Your task to perform on an android device: clear history in the chrome app Image 0: 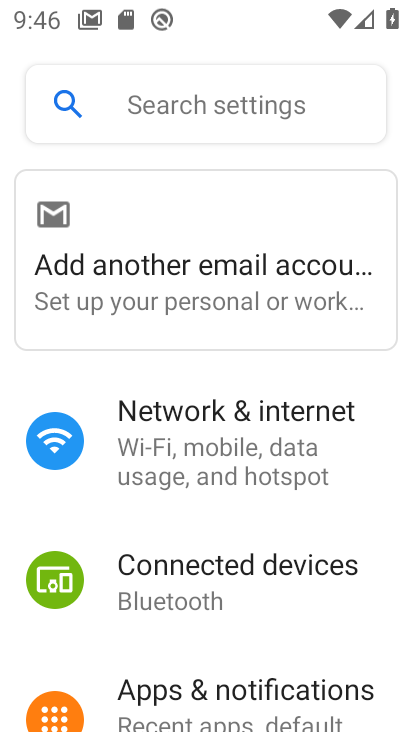
Step 0: press home button
Your task to perform on an android device: clear history in the chrome app Image 1: 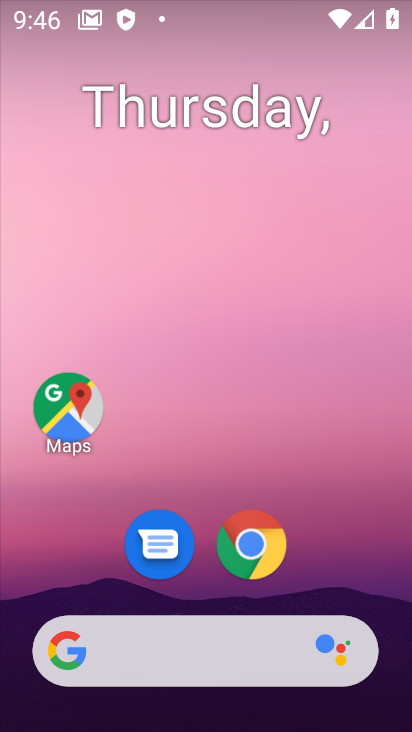
Step 1: drag from (233, 77) to (255, 15)
Your task to perform on an android device: clear history in the chrome app Image 2: 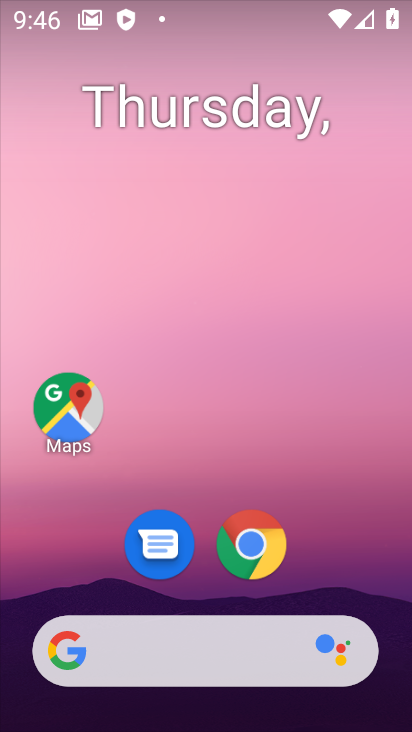
Step 2: drag from (215, 600) to (214, 93)
Your task to perform on an android device: clear history in the chrome app Image 3: 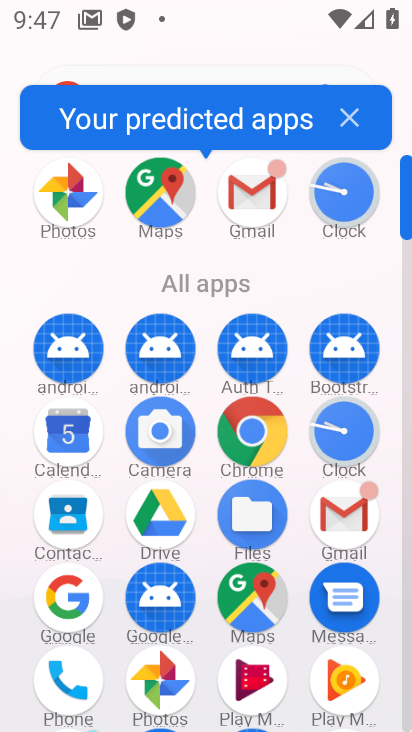
Step 3: click (245, 426)
Your task to perform on an android device: clear history in the chrome app Image 4: 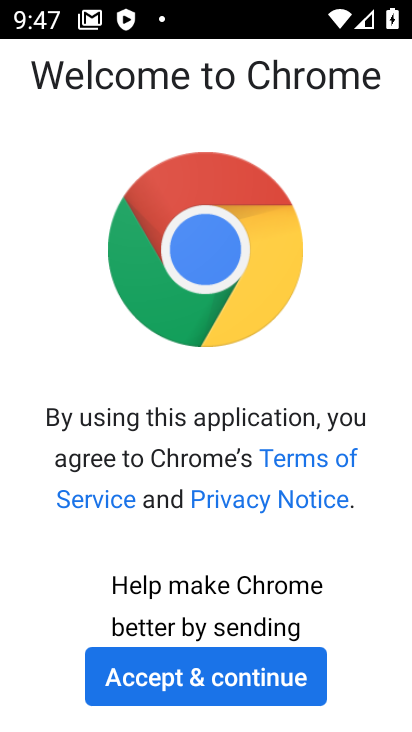
Step 4: click (194, 671)
Your task to perform on an android device: clear history in the chrome app Image 5: 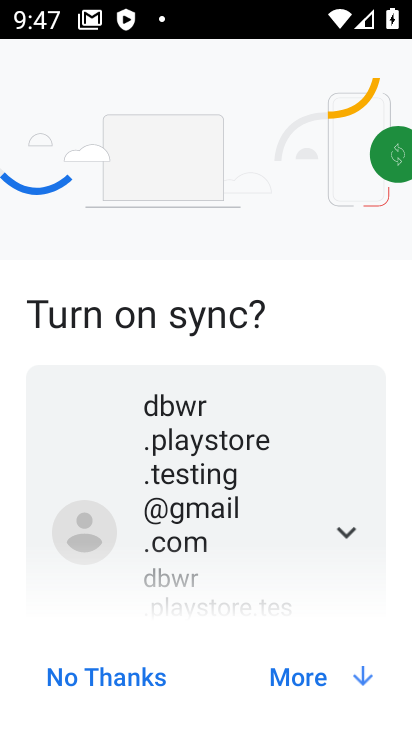
Step 5: click (299, 682)
Your task to perform on an android device: clear history in the chrome app Image 6: 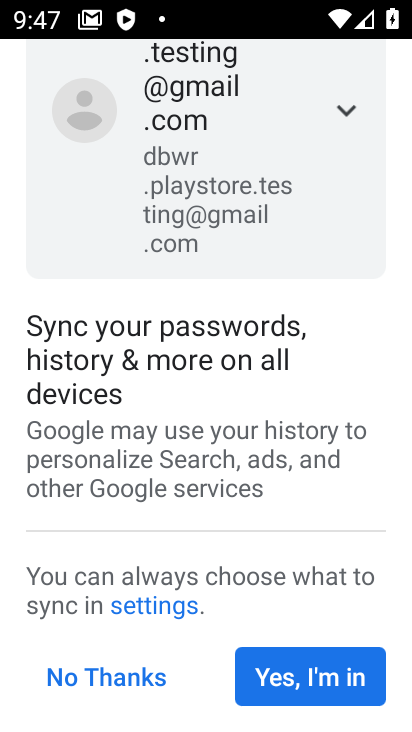
Step 6: click (304, 678)
Your task to perform on an android device: clear history in the chrome app Image 7: 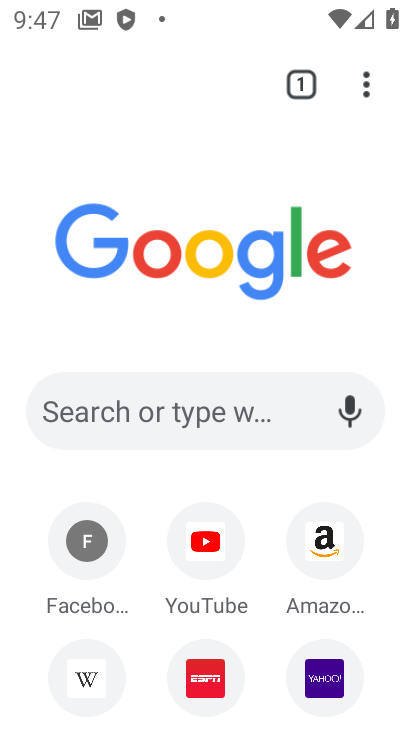
Step 7: click (366, 78)
Your task to perform on an android device: clear history in the chrome app Image 8: 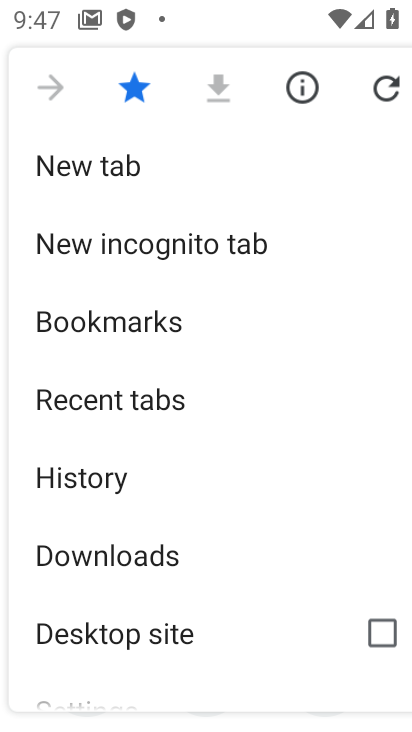
Step 8: click (136, 476)
Your task to perform on an android device: clear history in the chrome app Image 9: 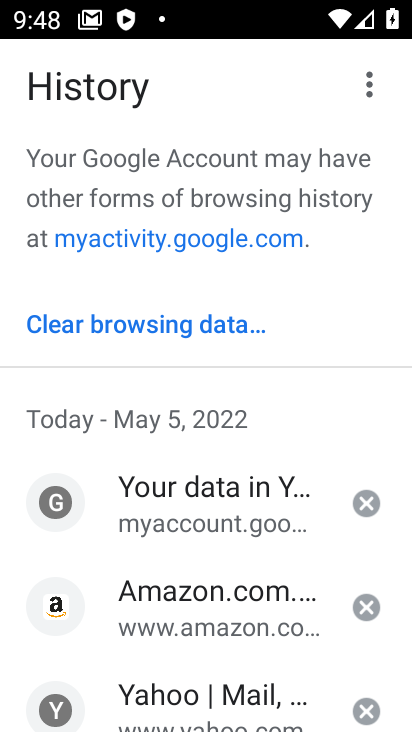
Step 9: click (144, 325)
Your task to perform on an android device: clear history in the chrome app Image 10: 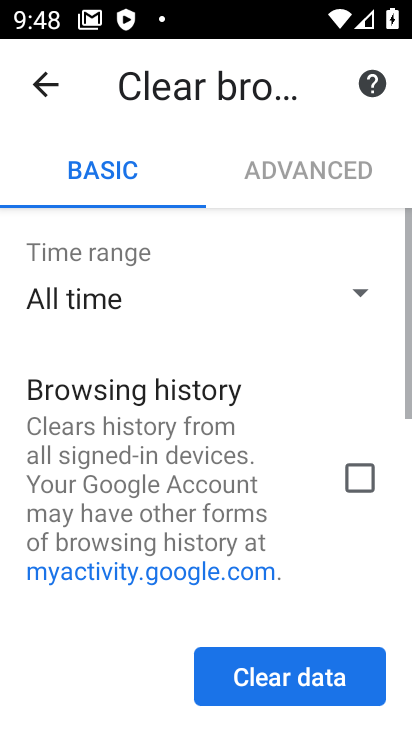
Step 10: click (355, 481)
Your task to perform on an android device: clear history in the chrome app Image 11: 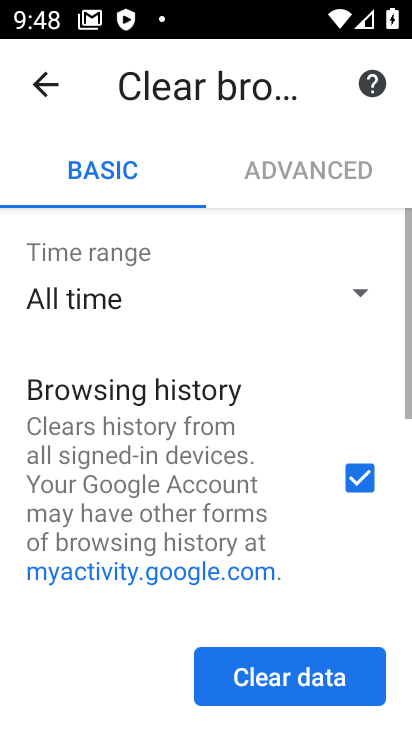
Step 11: drag from (191, 557) to (193, 210)
Your task to perform on an android device: clear history in the chrome app Image 12: 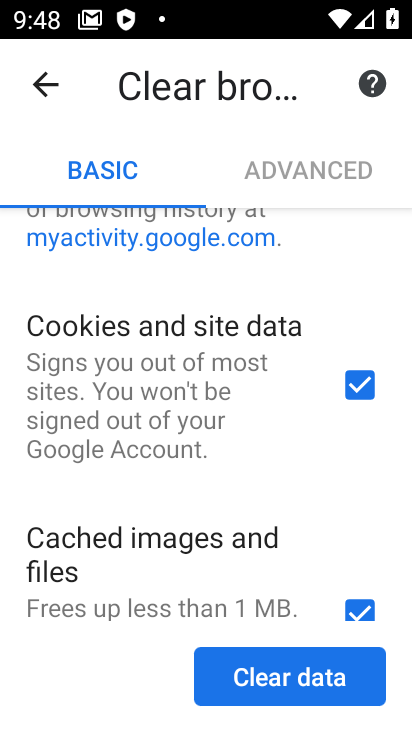
Step 12: click (300, 674)
Your task to perform on an android device: clear history in the chrome app Image 13: 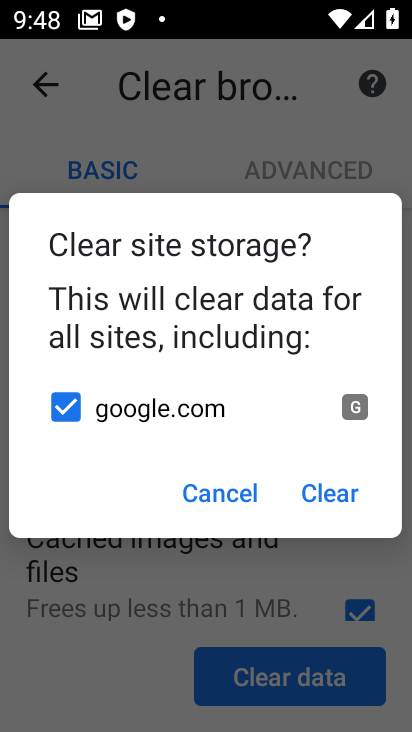
Step 13: click (331, 488)
Your task to perform on an android device: clear history in the chrome app Image 14: 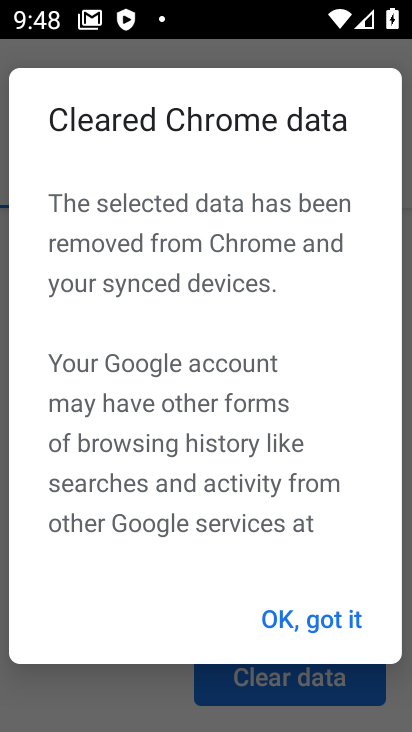
Step 14: click (303, 623)
Your task to perform on an android device: clear history in the chrome app Image 15: 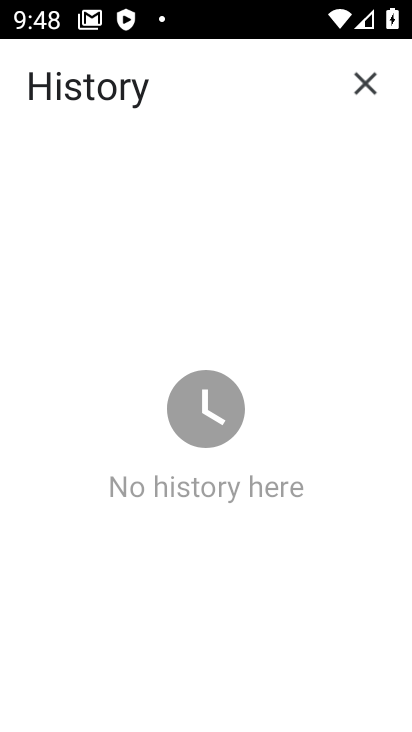
Step 15: task complete